Your task to perform on an android device: turn notification dots on Image 0: 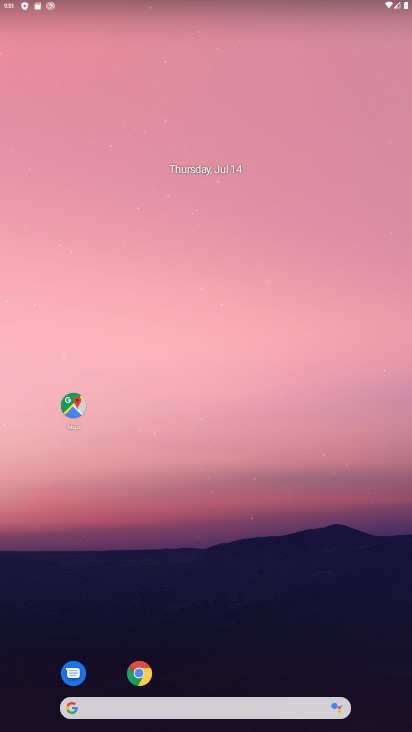
Step 0: drag from (198, 596) to (162, 74)
Your task to perform on an android device: turn notification dots on Image 1: 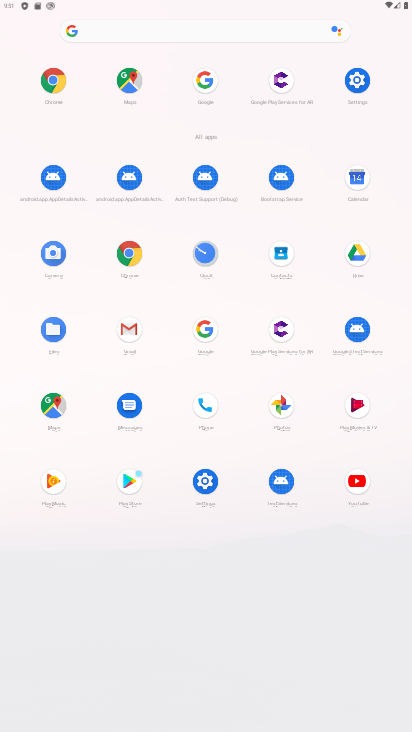
Step 1: click (356, 84)
Your task to perform on an android device: turn notification dots on Image 2: 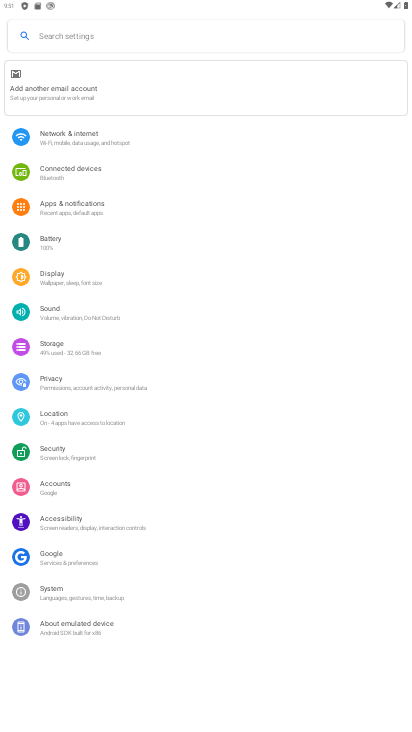
Step 2: click (61, 205)
Your task to perform on an android device: turn notification dots on Image 3: 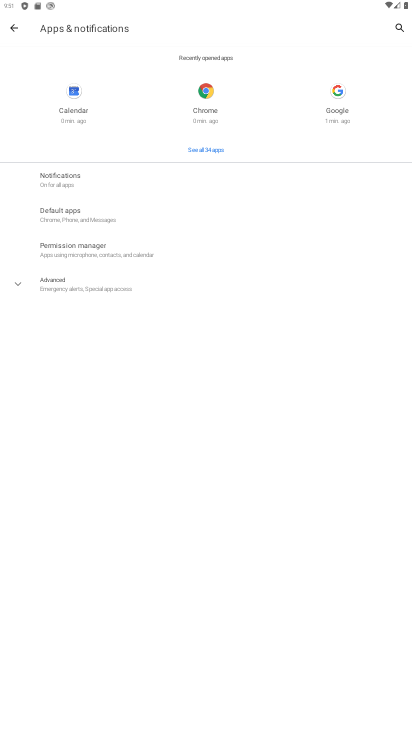
Step 3: click (46, 176)
Your task to perform on an android device: turn notification dots on Image 4: 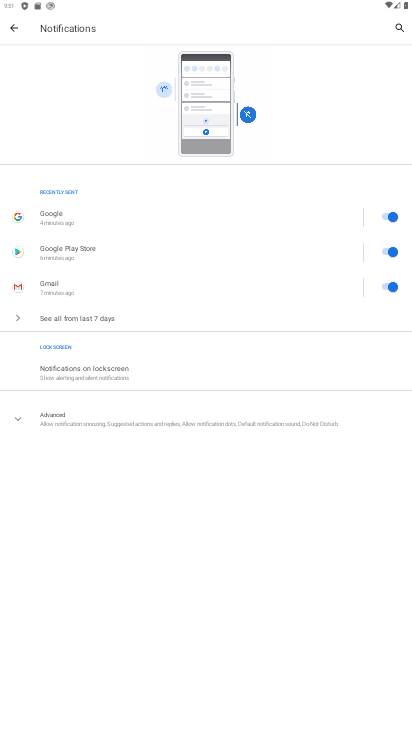
Step 4: click (18, 421)
Your task to perform on an android device: turn notification dots on Image 5: 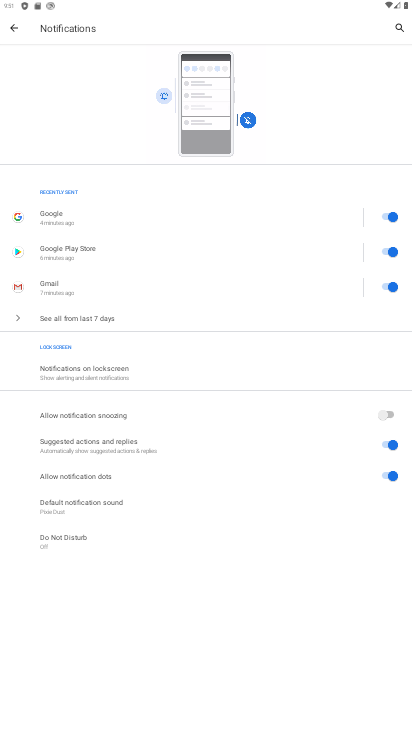
Step 5: task complete